Your task to perform on an android device: See recent photos Image 0: 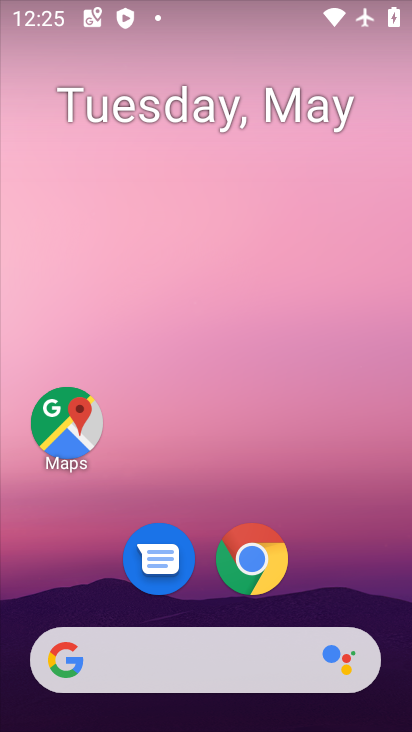
Step 0: drag from (363, 575) to (345, 49)
Your task to perform on an android device: See recent photos Image 1: 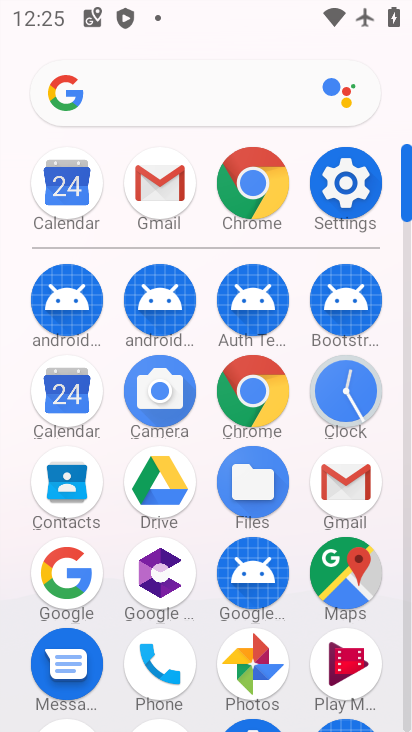
Step 1: click (262, 670)
Your task to perform on an android device: See recent photos Image 2: 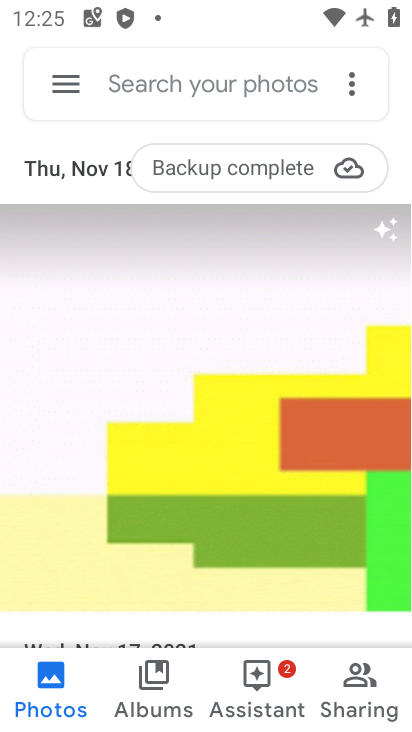
Step 2: click (62, 75)
Your task to perform on an android device: See recent photos Image 3: 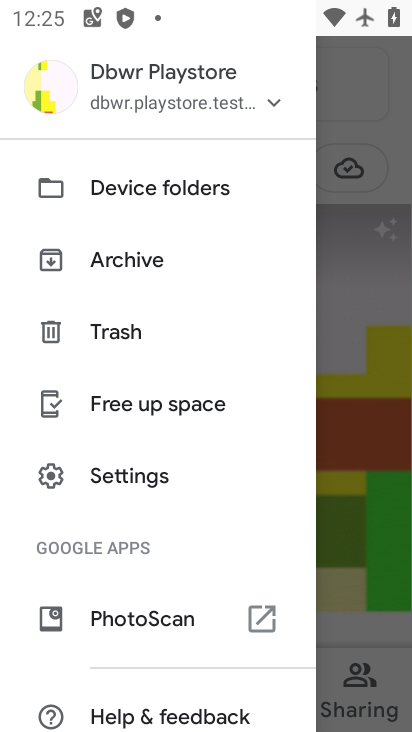
Step 3: click (97, 275)
Your task to perform on an android device: See recent photos Image 4: 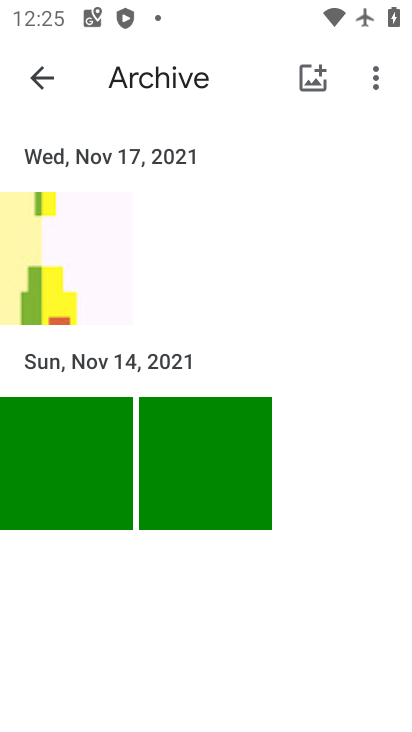
Step 4: task complete